Your task to perform on an android device: Go to Yahoo.com Image 0: 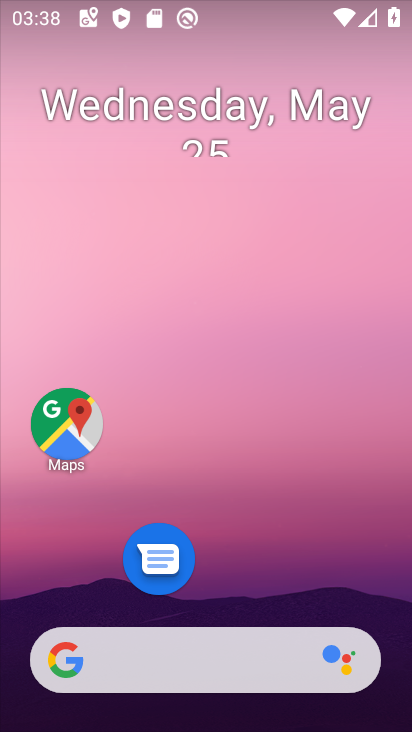
Step 0: press home button
Your task to perform on an android device: Go to Yahoo.com Image 1: 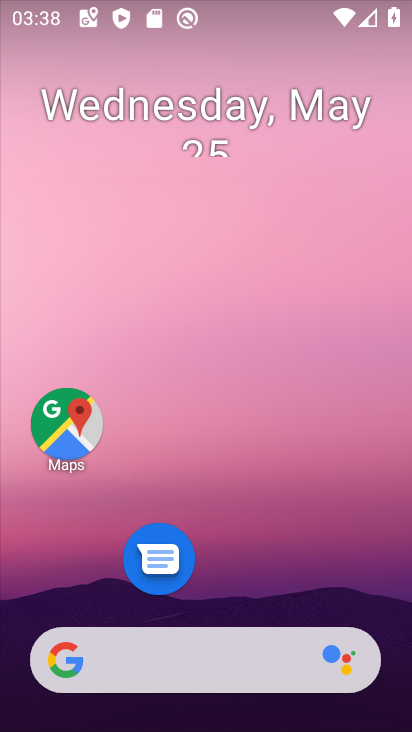
Step 1: drag from (233, 604) to (266, 20)
Your task to perform on an android device: Go to Yahoo.com Image 2: 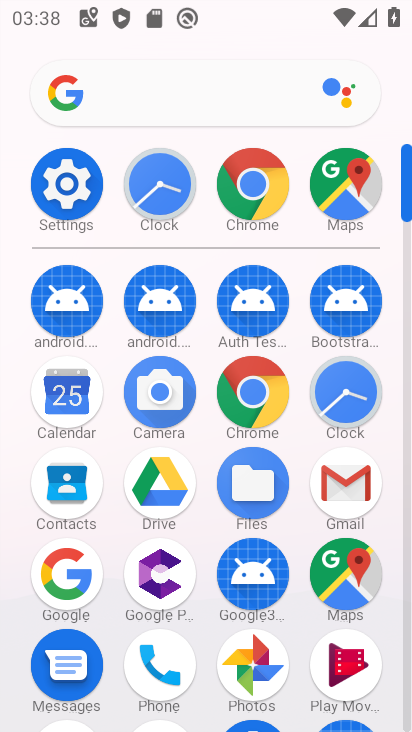
Step 2: click (250, 176)
Your task to perform on an android device: Go to Yahoo.com Image 3: 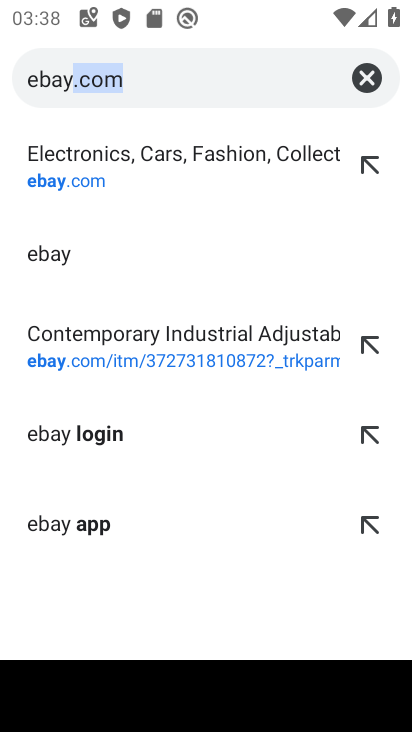
Step 3: click (362, 72)
Your task to perform on an android device: Go to Yahoo.com Image 4: 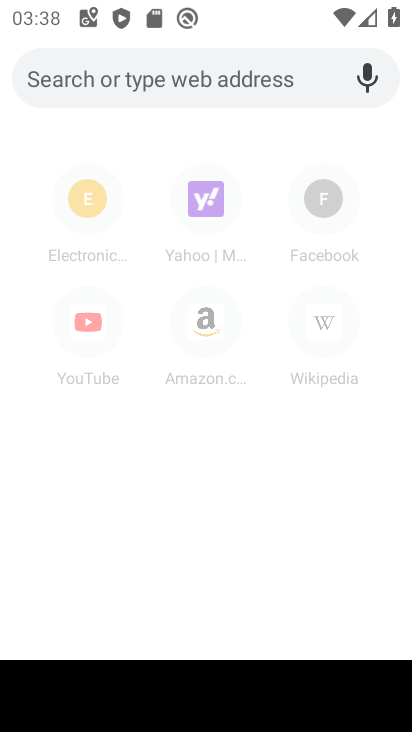
Step 4: click (101, 67)
Your task to perform on an android device: Go to Yahoo.com Image 5: 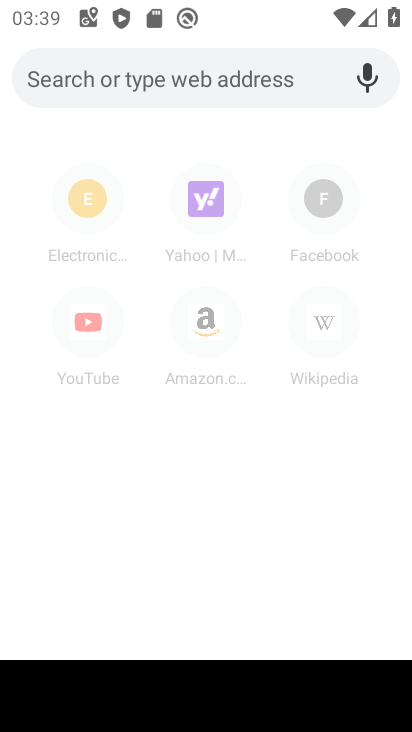
Step 5: type "yahoo.com"
Your task to perform on an android device: Go to Yahoo.com Image 6: 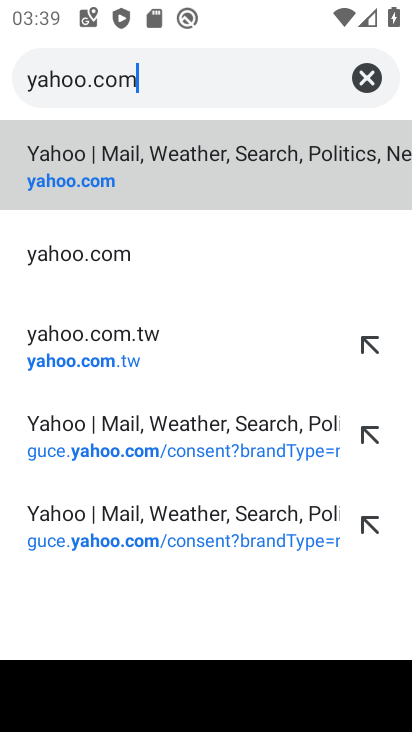
Step 6: click (139, 179)
Your task to perform on an android device: Go to Yahoo.com Image 7: 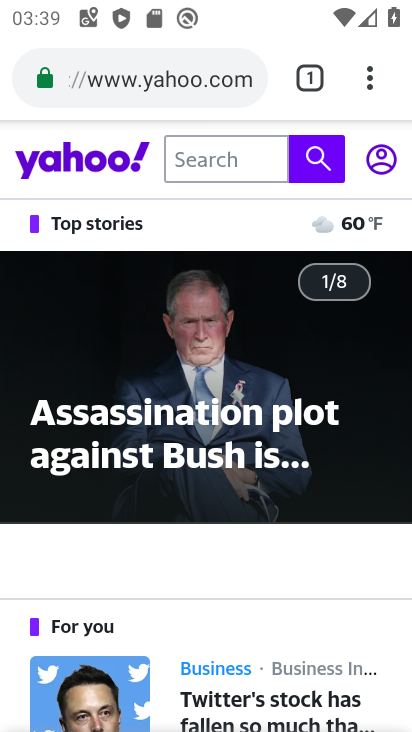
Step 7: task complete